Your task to perform on an android device: turn on location history Image 0: 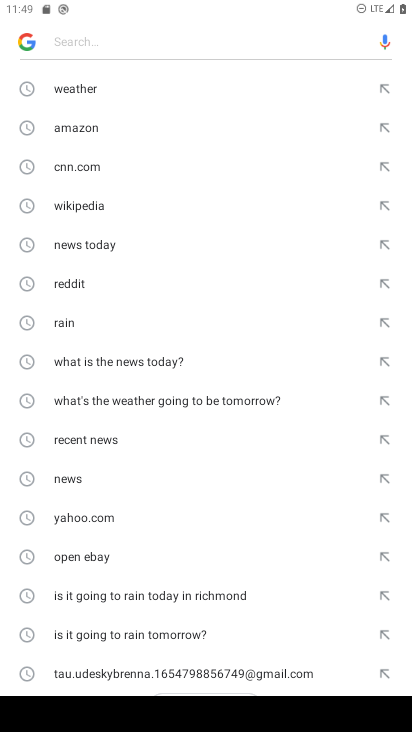
Step 0: press home button
Your task to perform on an android device: turn on location history Image 1: 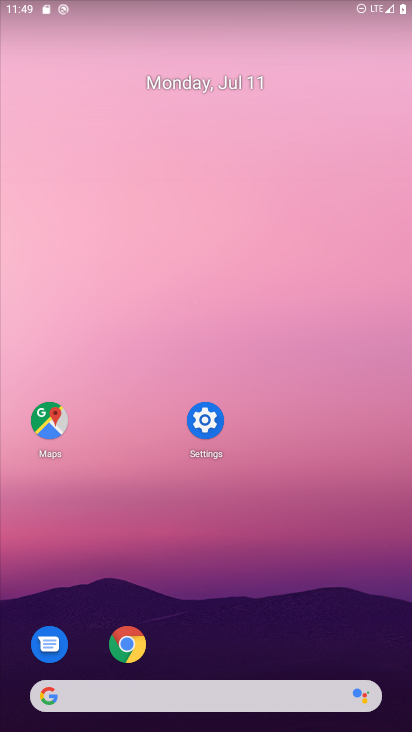
Step 1: click (206, 417)
Your task to perform on an android device: turn on location history Image 2: 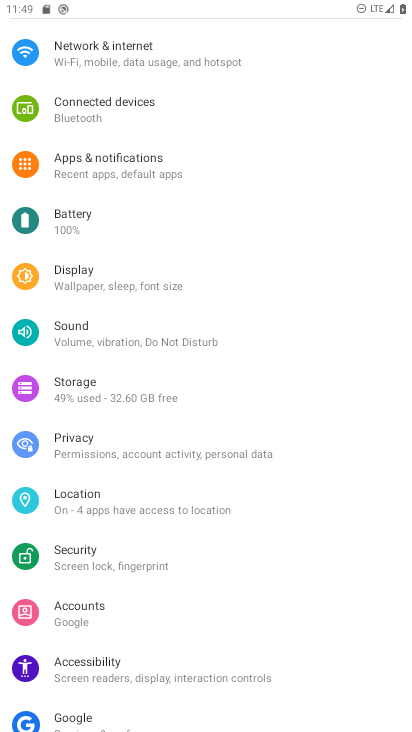
Step 2: click (87, 417)
Your task to perform on an android device: turn on location history Image 3: 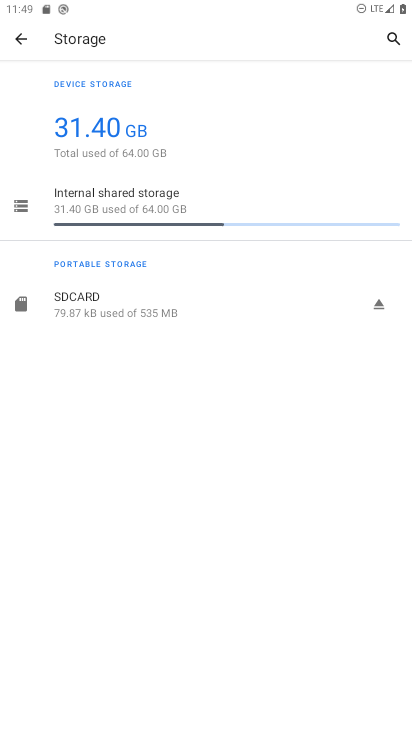
Step 3: click (20, 29)
Your task to perform on an android device: turn on location history Image 4: 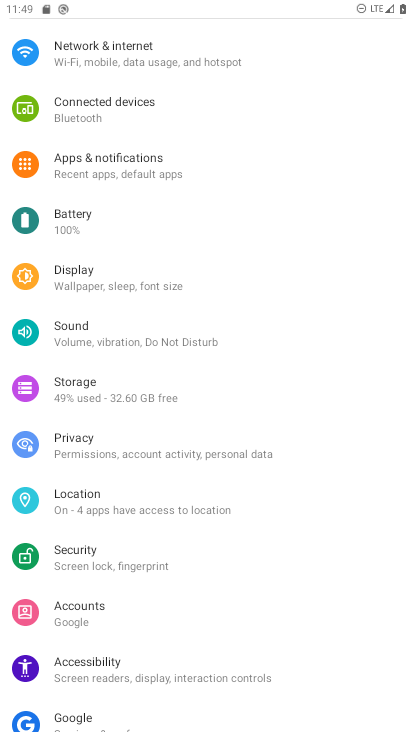
Step 4: click (73, 500)
Your task to perform on an android device: turn on location history Image 5: 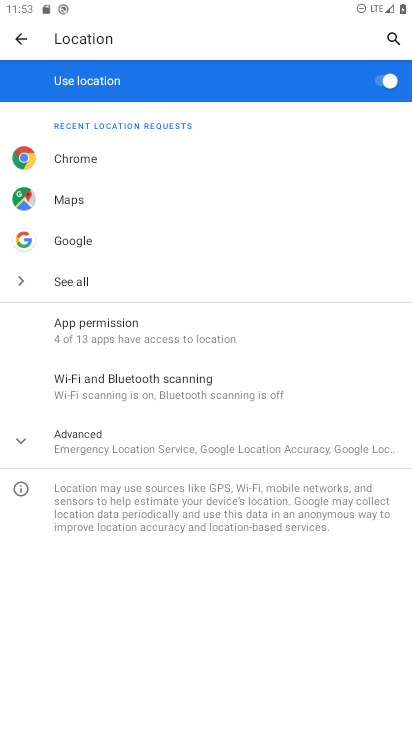
Step 5: task complete